Your task to perform on an android device: Open eBay Image 0: 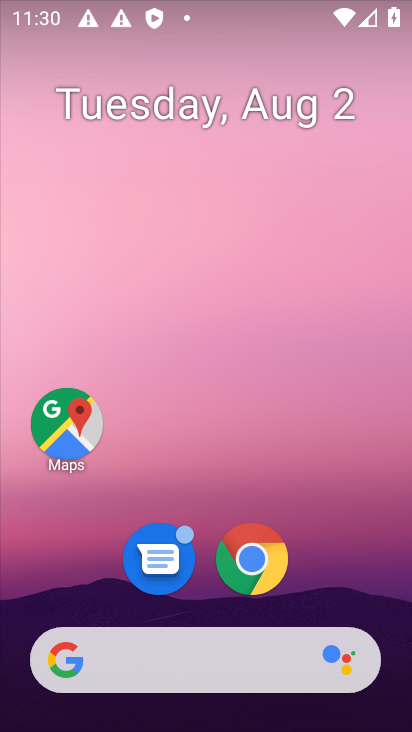
Step 0: drag from (202, 570) to (219, 121)
Your task to perform on an android device: Open eBay Image 1: 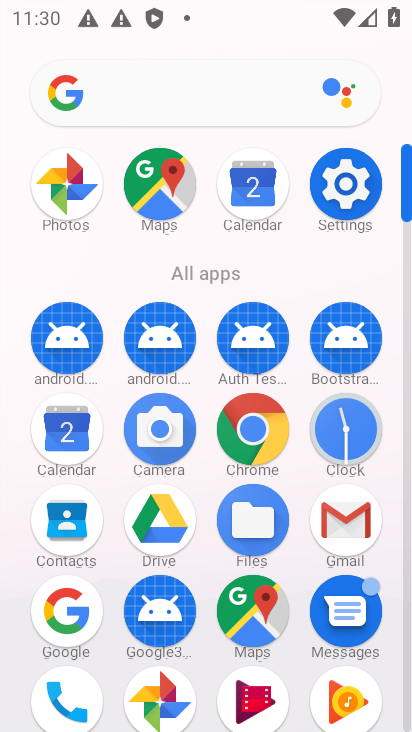
Step 1: drag from (201, 642) to (218, 300)
Your task to perform on an android device: Open eBay Image 2: 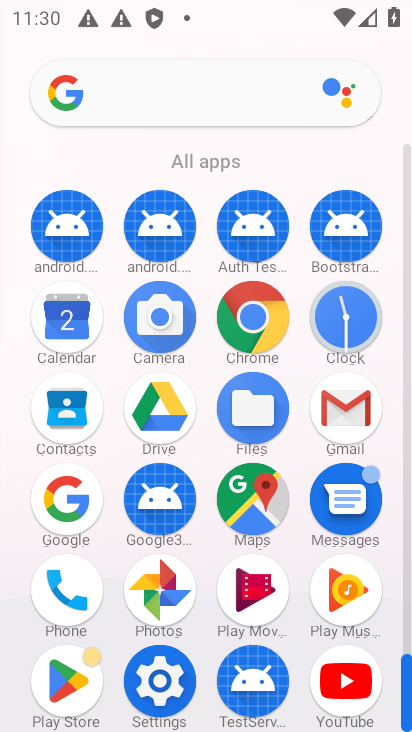
Step 2: click (253, 322)
Your task to perform on an android device: Open eBay Image 3: 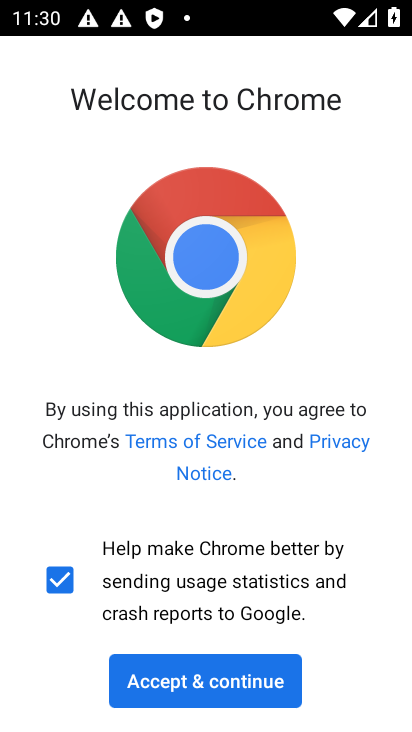
Step 3: click (203, 679)
Your task to perform on an android device: Open eBay Image 4: 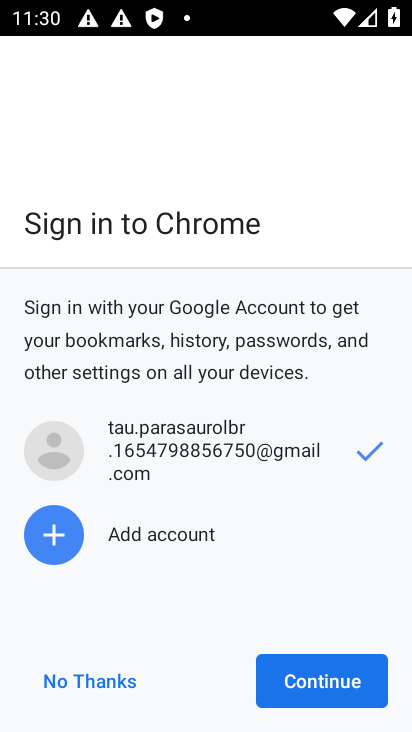
Step 4: click (325, 682)
Your task to perform on an android device: Open eBay Image 5: 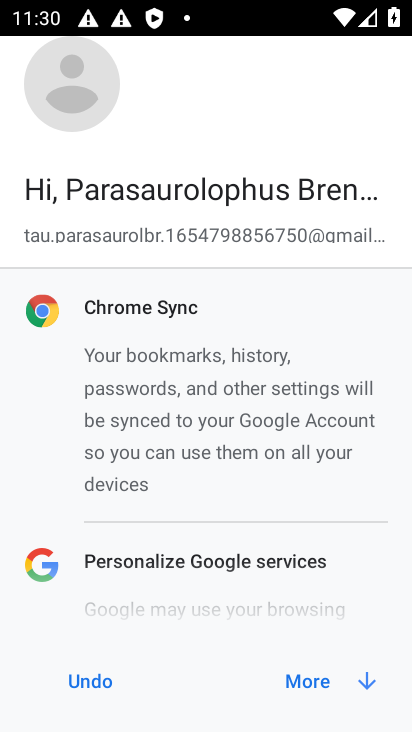
Step 5: click (305, 682)
Your task to perform on an android device: Open eBay Image 6: 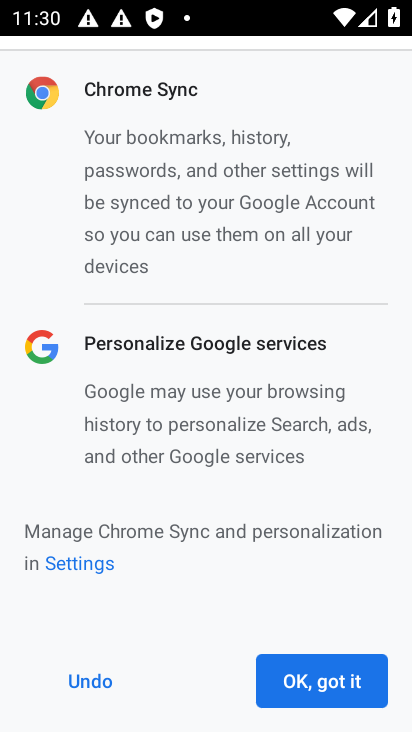
Step 6: click (305, 682)
Your task to perform on an android device: Open eBay Image 7: 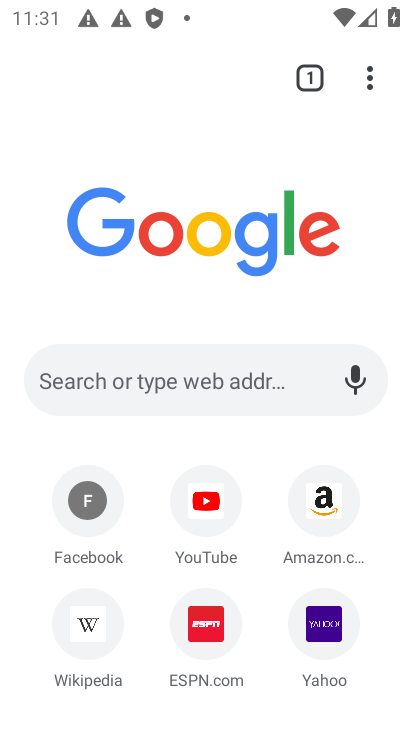
Step 7: click (229, 383)
Your task to perform on an android device: Open eBay Image 8: 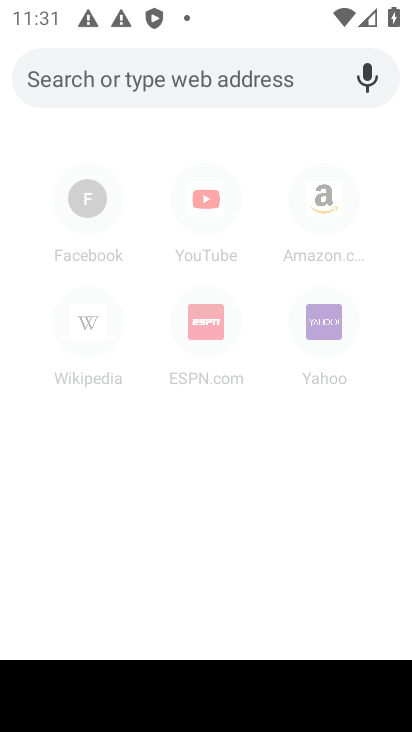
Step 8: type "ebay"
Your task to perform on an android device: Open eBay Image 9: 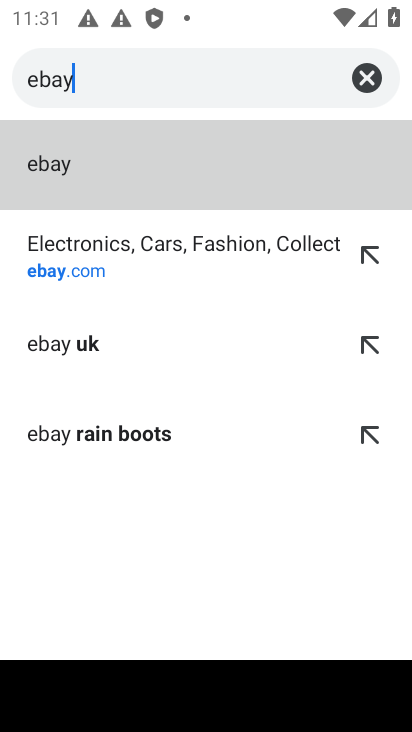
Step 9: type ""
Your task to perform on an android device: Open eBay Image 10: 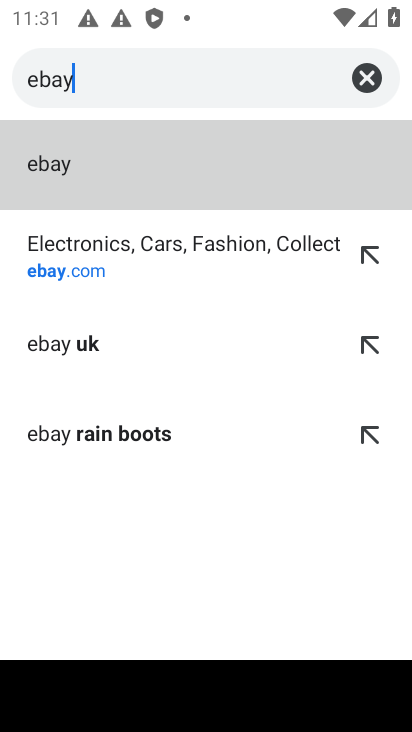
Step 10: click (56, 175)
Your task to perform on an android device: Open eBay Image 11: 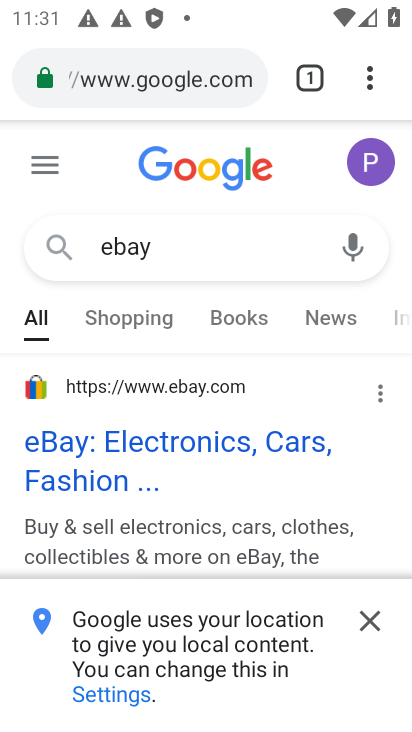
Step 11: click (166, 434)
Your task to perform on an android device: Open eBay Image 12: 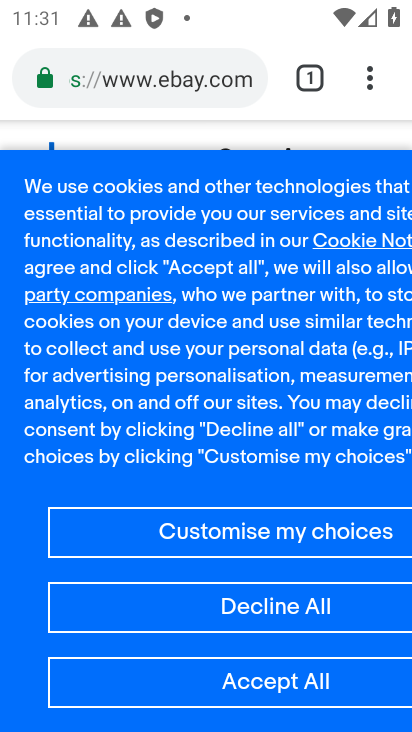
Step 12: task complete